Your task to perform on an android device: turn off priority inbox in the gmail app Image 0: 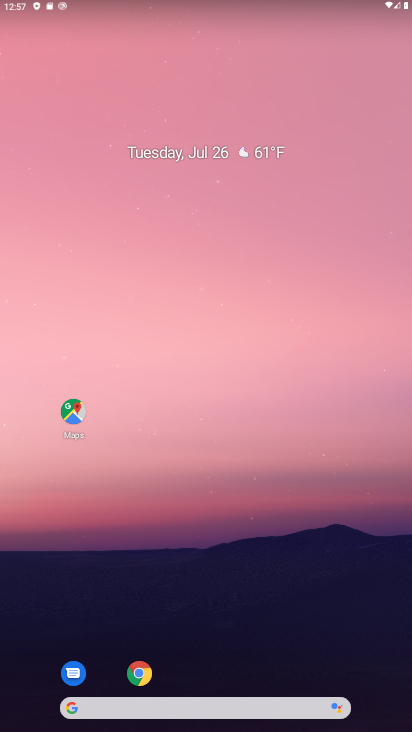
Step 0: drag from (184, 292) to (9, 184)
Your task to perform on an android device: turn off priority inbox in the gmail app Image 1: 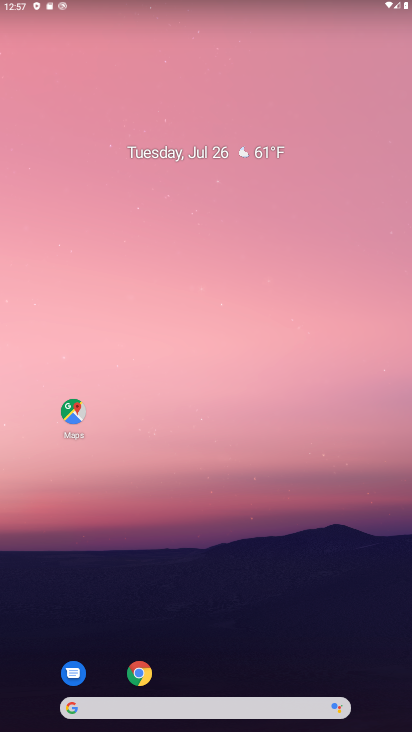
Step 1: drag from (190, 629) to (224, 102)
Your task to perform on an android device: turn off priority inbox in the gmail app Image 2: 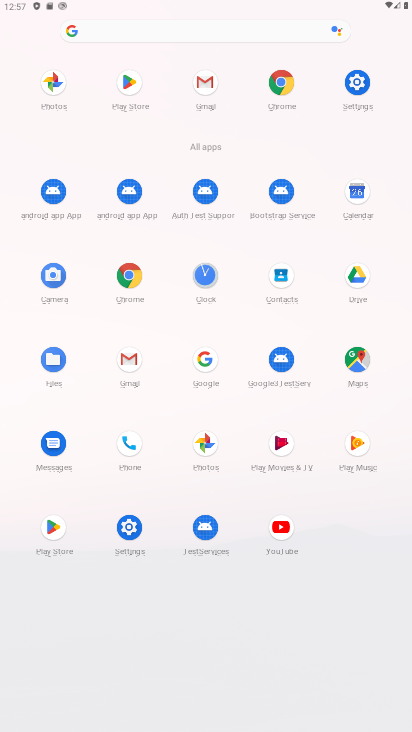
Step 2: click (127, 355)
Your task to perform on an android device: turn off priority inbox in the gmail app Image 3: 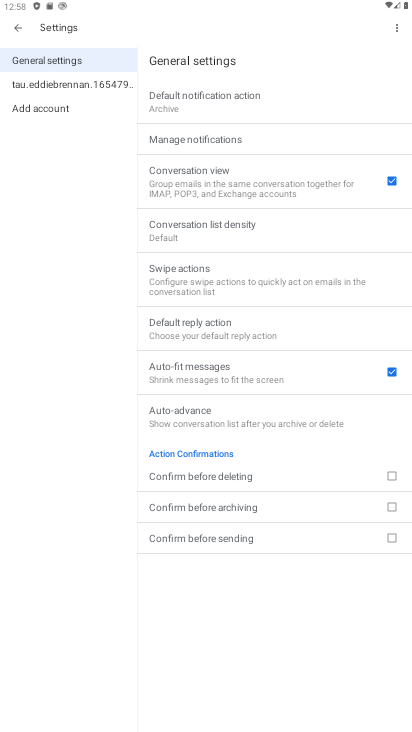
Step 3: click (53, 83)
Your task to perform on an android device: turn off priority inbox in the gmail app Image 4: 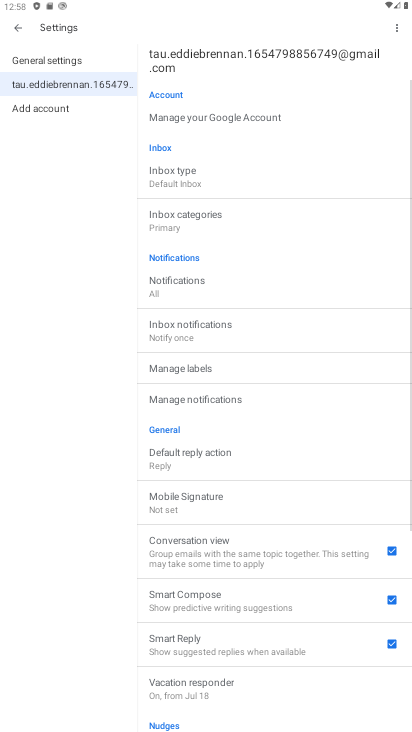
Step 4: click (183, 193)
Your task to perform on an android device: turn off priority inbox in the gmail app Image 5: 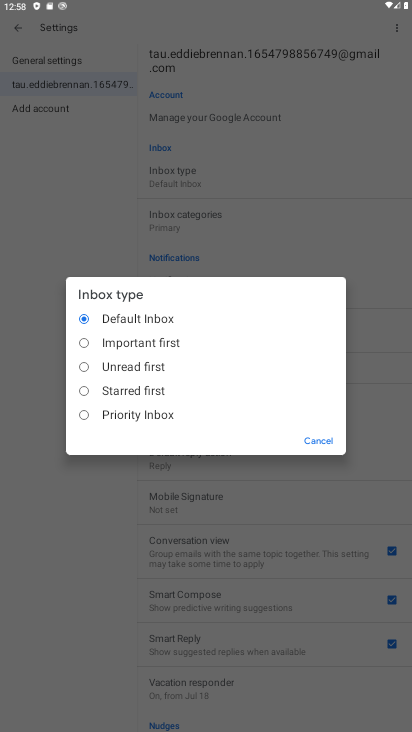
Step 5: task complete